Your task to perform on an android device: change the upload size in google photos Image 0: 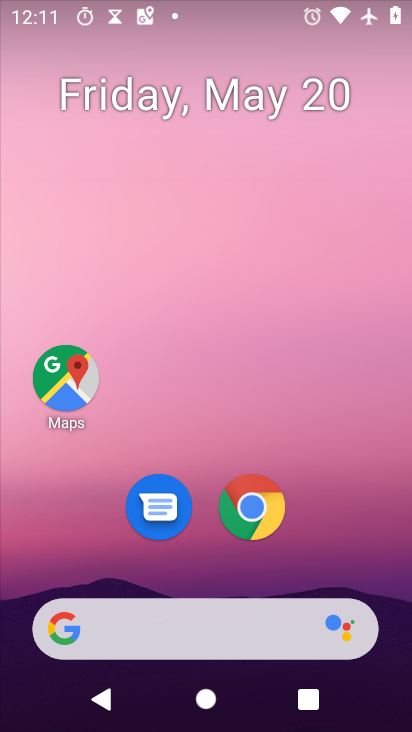
Step 0: drag from (337, 497) to (238, 9)
Your task to perform on an android device: change the upload size in google photos Image 1: 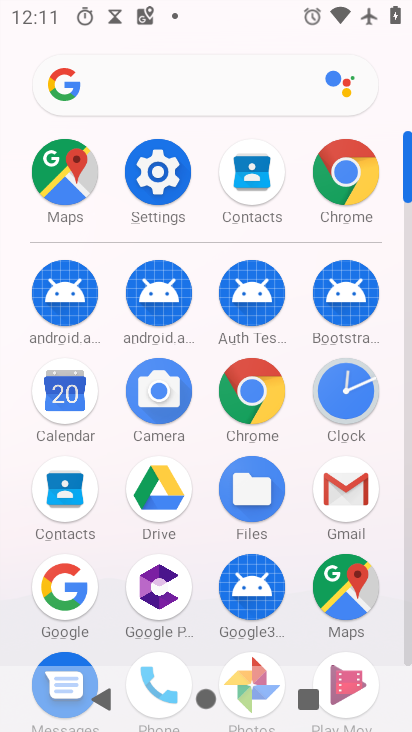
Step 1: drag from (15, 560) to (28, 239)
Your task to perform on an android device: change the upload size in google photos Image 2: 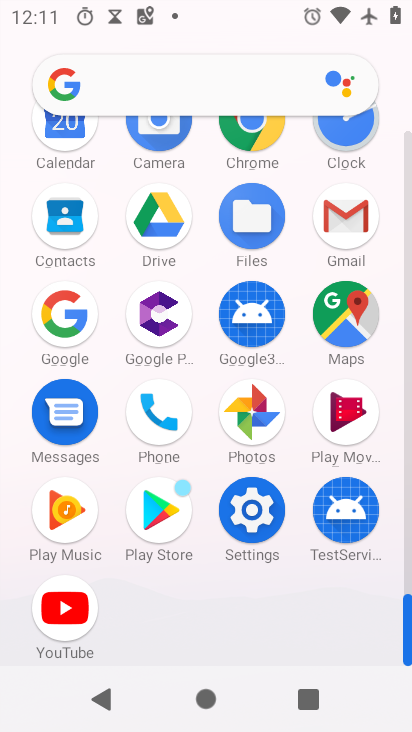
Step 2: click (250, 415)
Your task to perform on an android device: change the upload size in google photos Image 3: 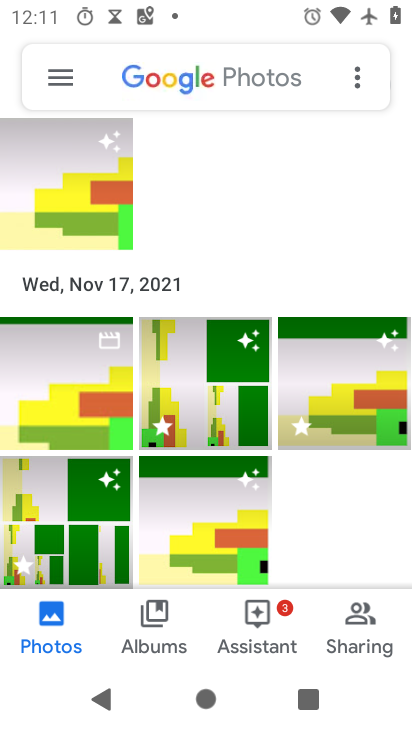
Step 3: click (68, 83)
Your task to perform on an android device: change the upload size in google photos Image 4: 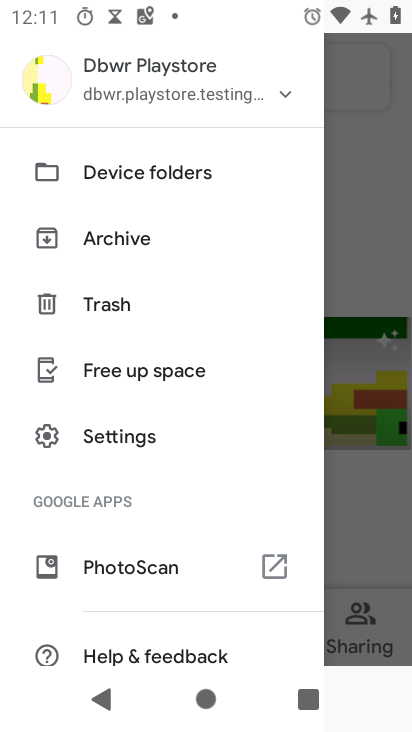
Step 4: click (143, 425)
Your task to perform on an android device: change the upload size in google photos Image 5: 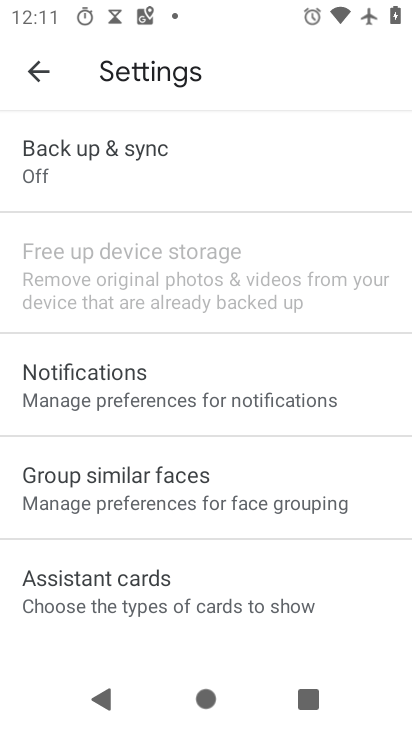
Step 5: drag from (222, 517) to (289, 124)
Your task to perform on an android device: change the upload size in google photos Image 6: 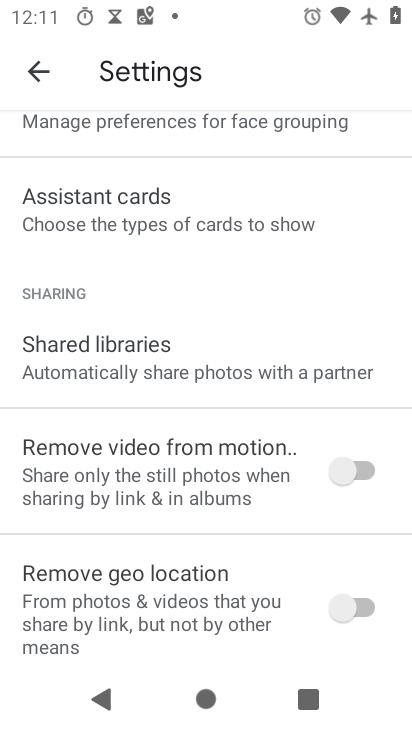
Step 6: drag from (287, 134) to (276, 661)
Your task to perform on an android device: change the upload size in google photos Image 7: 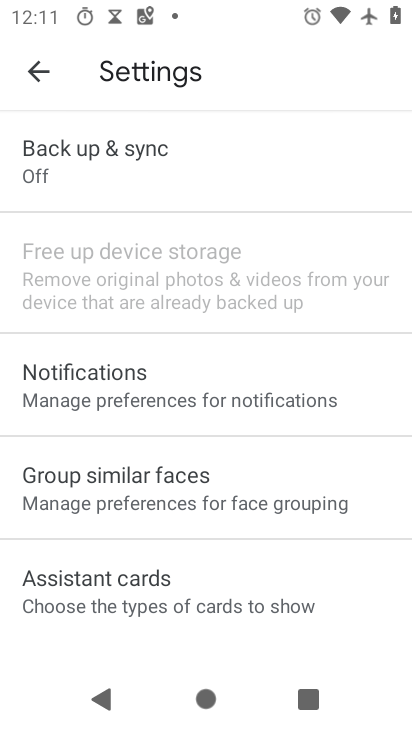
Step 7: click (190, 135)
Your task to perform on an android device: change the upload size in google photos Image 8: 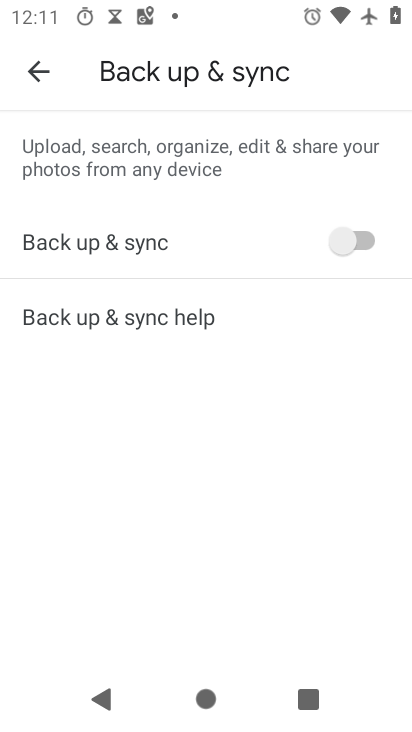
Step 8: click (23, 65)
Your task to perform on an android device: change the upload size in google photos Image 9: 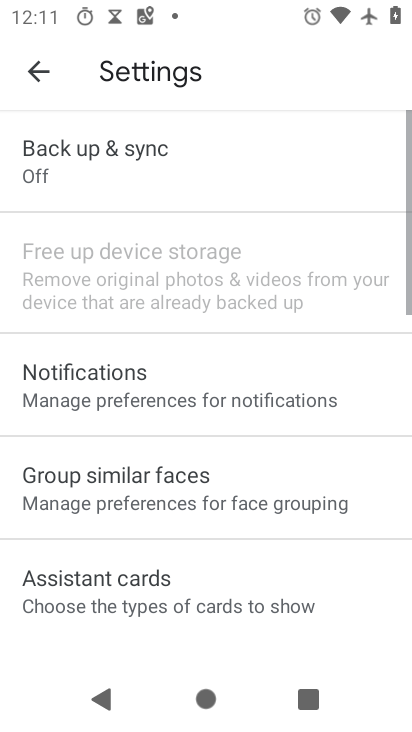
Step 9: drag from (235, 607) to (292, 105)
Your task to perform on an android device: change the upload size in google photos Image 10: 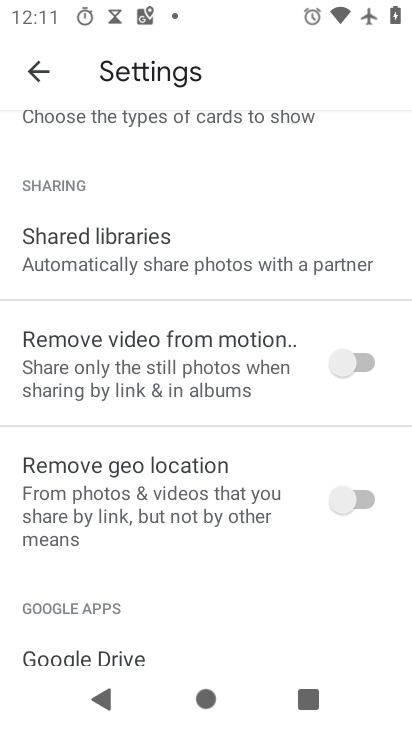
Step 10: click (30, 58)
Your task to perform on an android device: change the upload size in google photos Image 11: 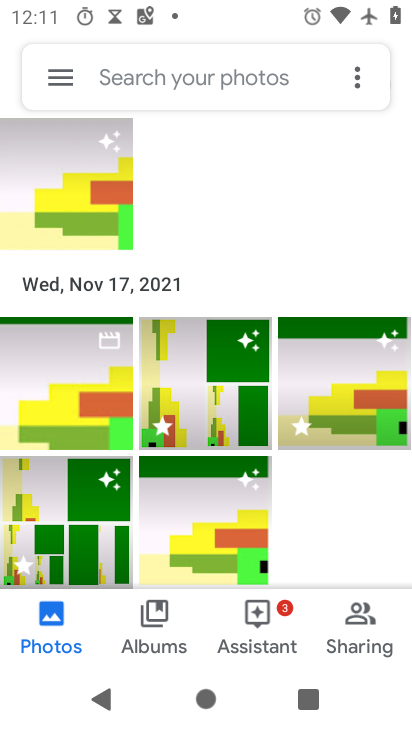
Step 11: click (359, 77)
Your task to perform on an android device: change the upload size in google photos Image 12: 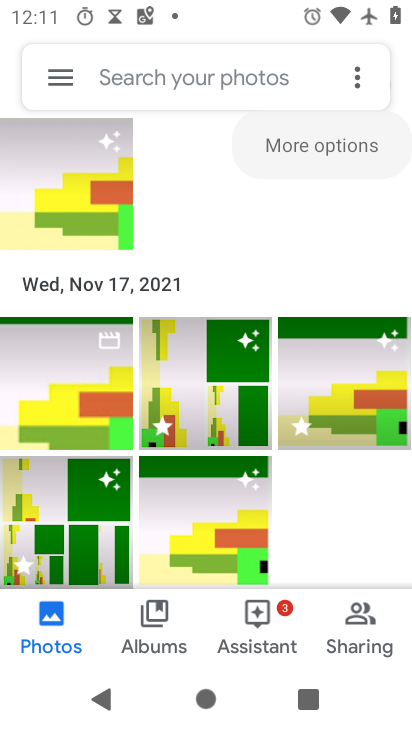
Step 12: click (345, 143)
Your task to perform on an android device: change the upload size in google photos Image 13: 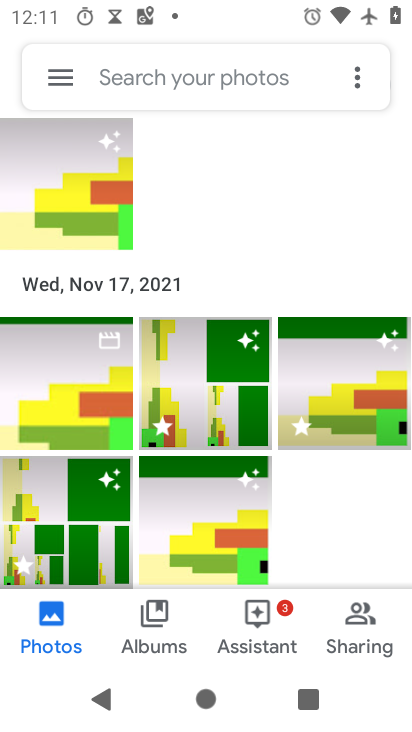
Step 13: click (363, 75)
Your task to perform on an android device: change the upload size in google photos Image 14: 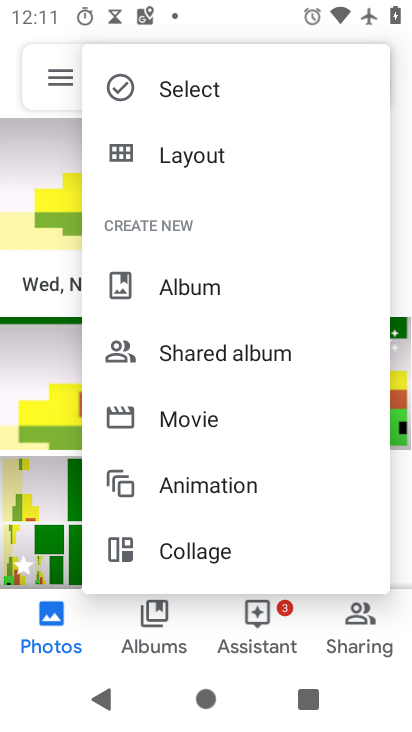
Step 14: click (361, 622)
Your task to perform on an android device: change the upload size in google photos Image 15: 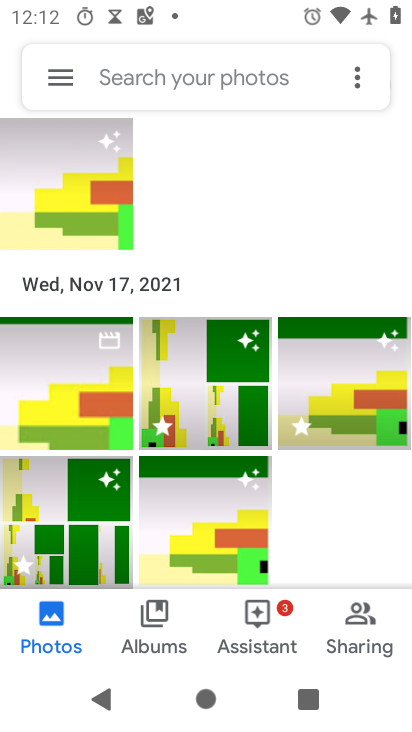
Step 15: task complete